Your task to perform on an android device: Open calendar and show me the fourth week of next month Image 0: 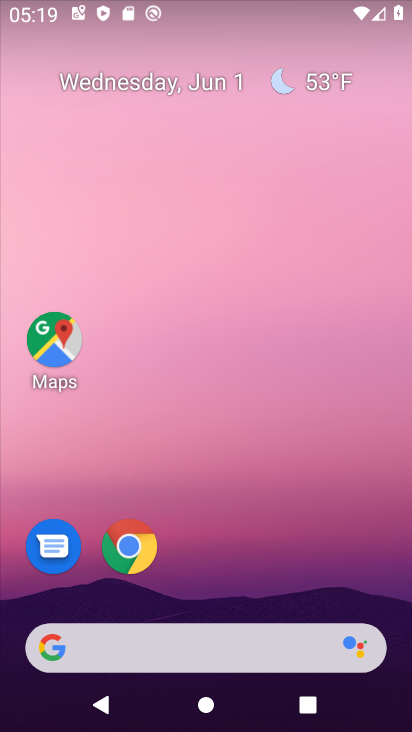
Step 0: drag from (233, 542) to (133, 61)
Your task to perform on an android device: Open calendar and show me the fourth week of next month Image 1: 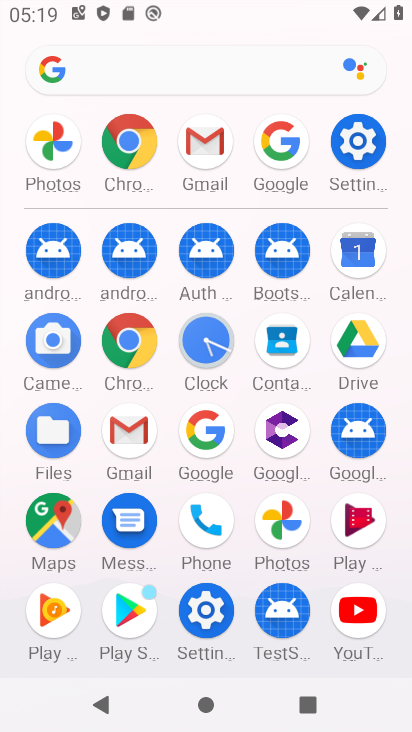
Step 1: click (354, 255)
Your task to perform on an android device: Open calendar and show me the fourth week of next month Image 2: 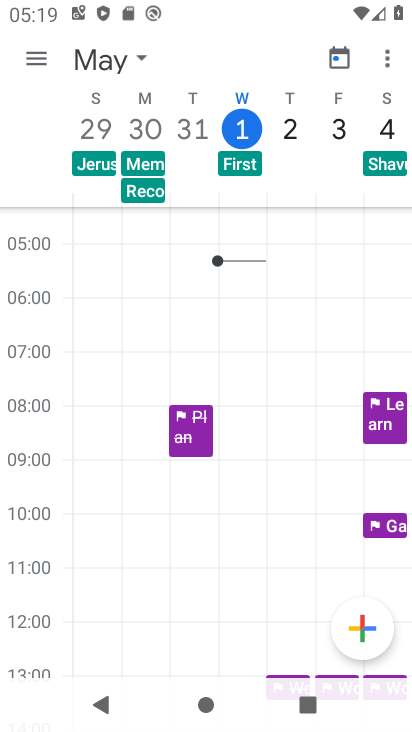
Step 2: click (134, 56)
Your task to perform on an android device: Open calendar and show me the fourth week of next month Image 3: 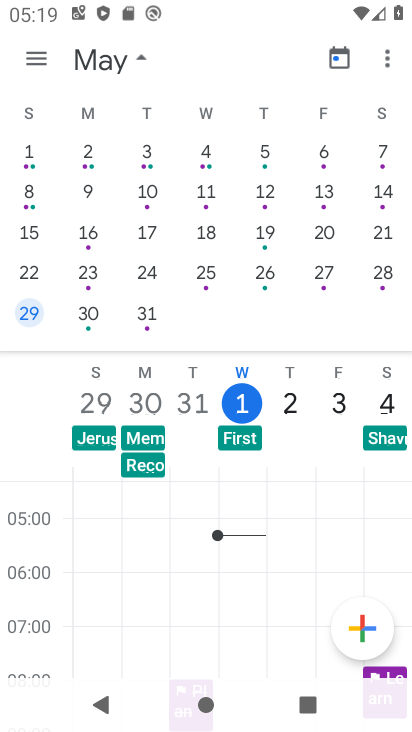
Step 3: drag from (337, 194) to (7, 243)
Your task to perform on an android device: Open calendar and show me the fourth week of next month Image 4: 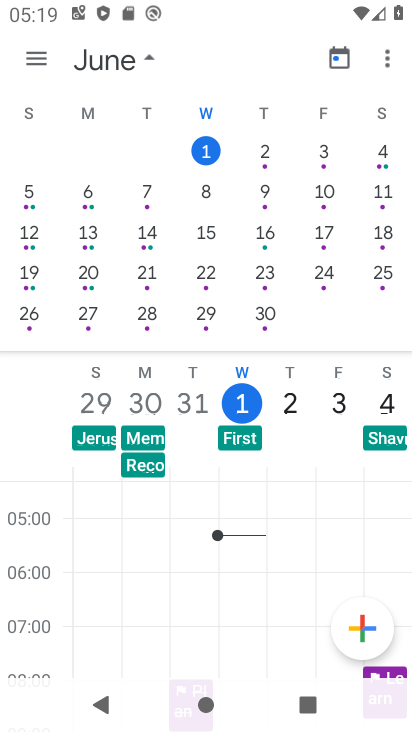
Step 4: click (206, 264)
Your task to perform on an android device: Open calendar and show me the fourth week of next month Image 5: 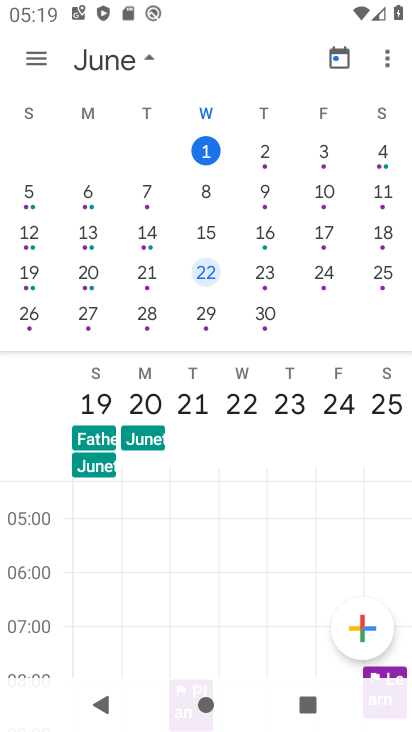
Step 5: task complete